Your task to perform on an android device: manage bookmarks in the chrome app Image 0: 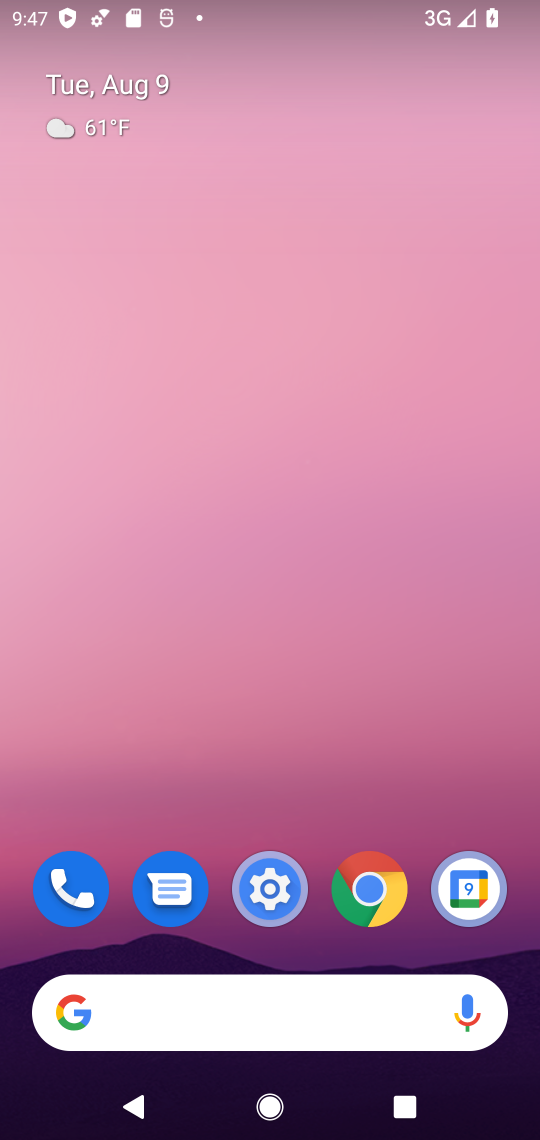
Step 0: drag from (400, 877) to (401, 267)
Your task to perform on an android device: manage bookmarks in the chrome app Image 1: 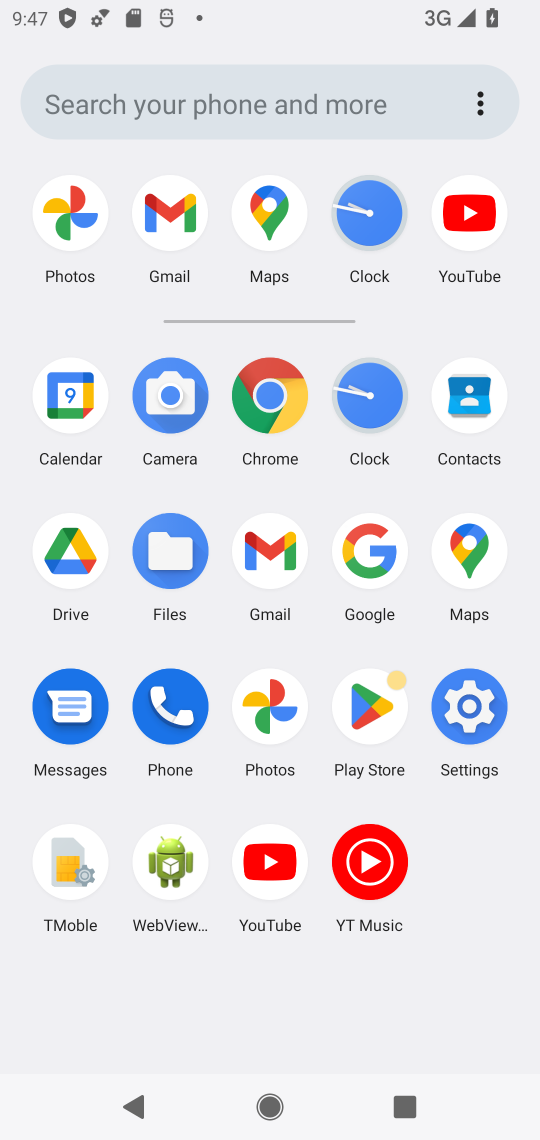
Step 1: click (278, 402)
Your task to perform on an android device: manage bookmarks in the chrome app Image 2: 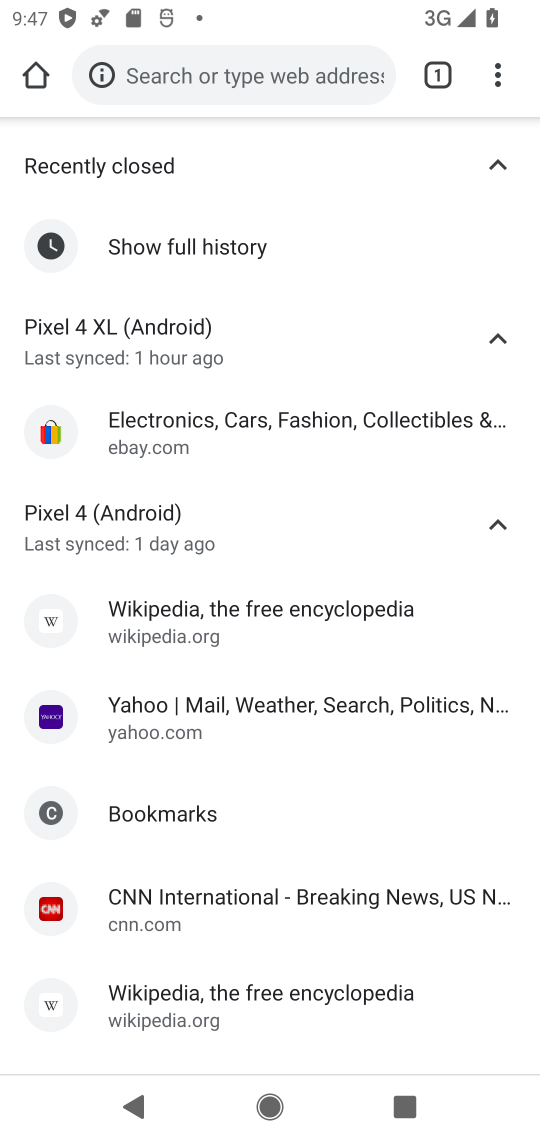
Step 2: drag from (494, 82) to (375, 535)
Your task to perform on an android device: manage bookmarks in the chrome app Image 3: 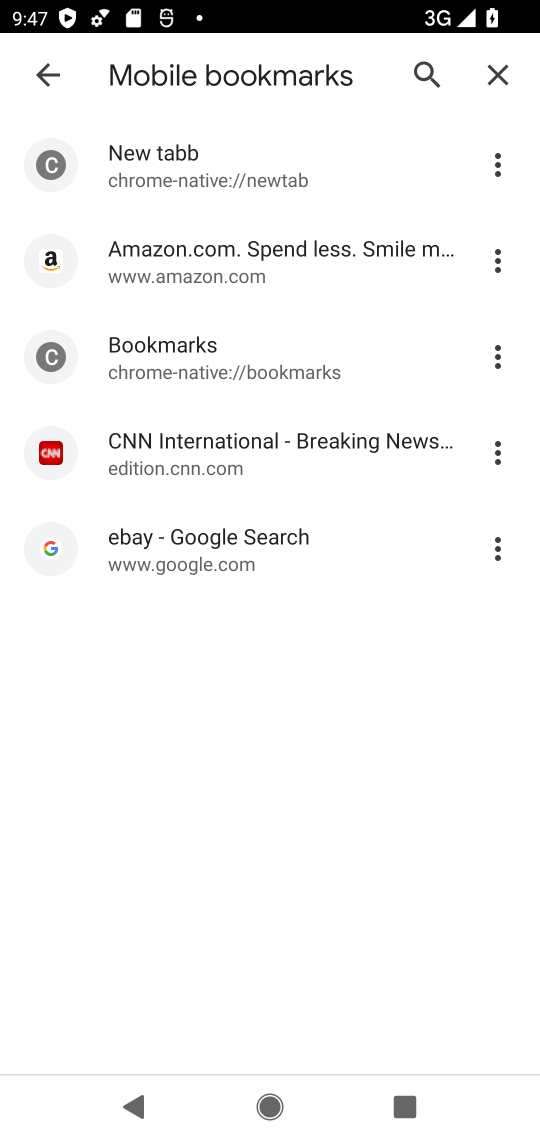
Step 3: click (492, 169)
Your task to perform on an android device: manage bookmarks in the chrome app Image 4: 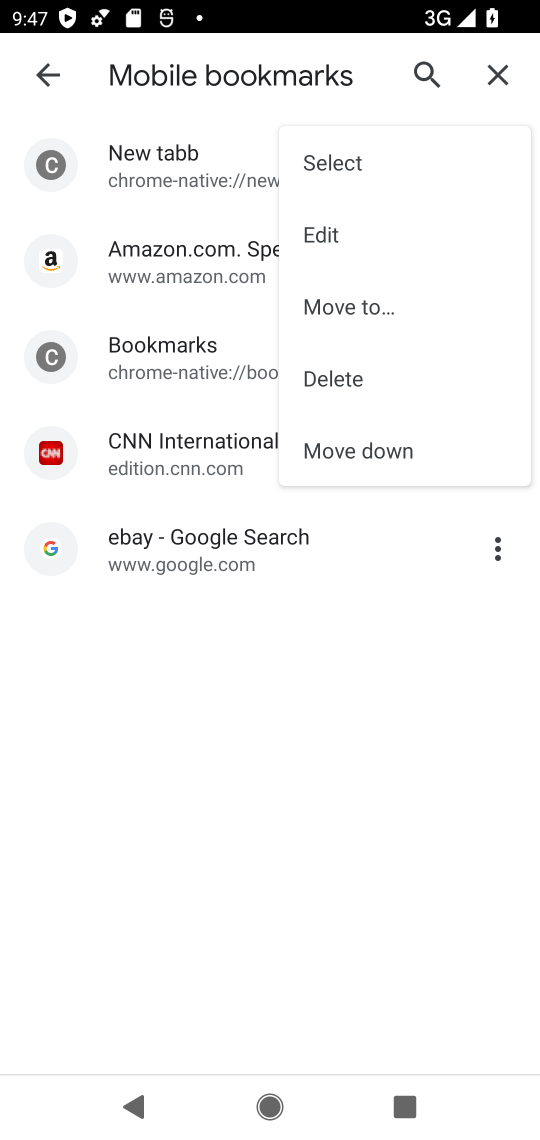
Step 4: click (342, 377)
Your task to perform on an android device: manage bookmarks in the chrome app Image 5: 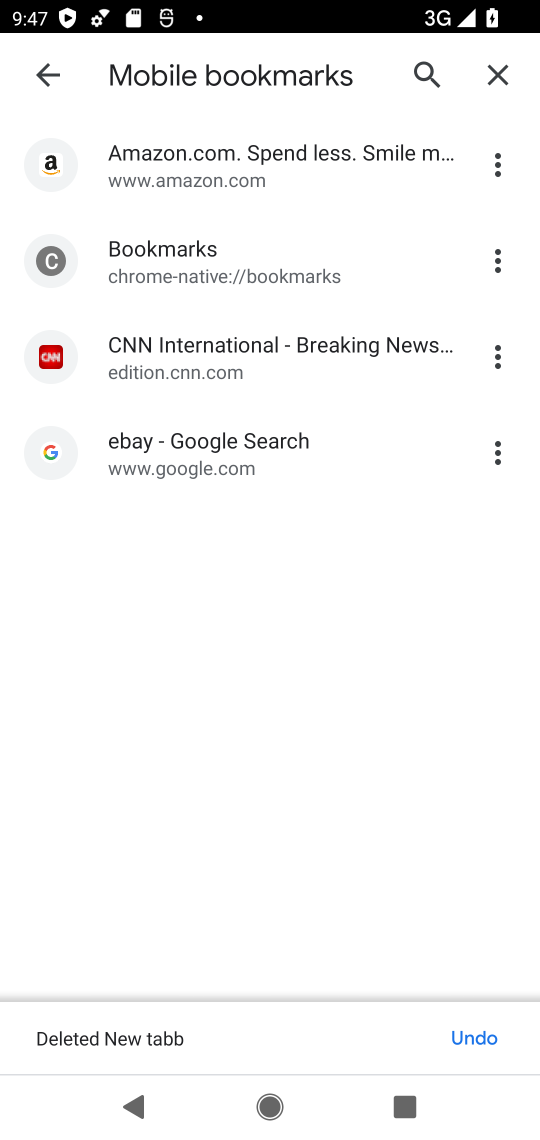
Step 5: task complete